Your task to perform on an android device: turn on bluetooth scan Image 0: 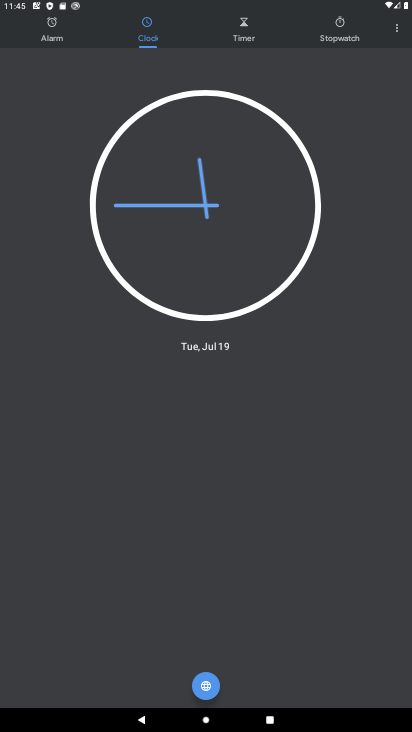
Step 0: click (394, 37)
Your task to perform on an android device: turn on bluetooth scan Image 1: 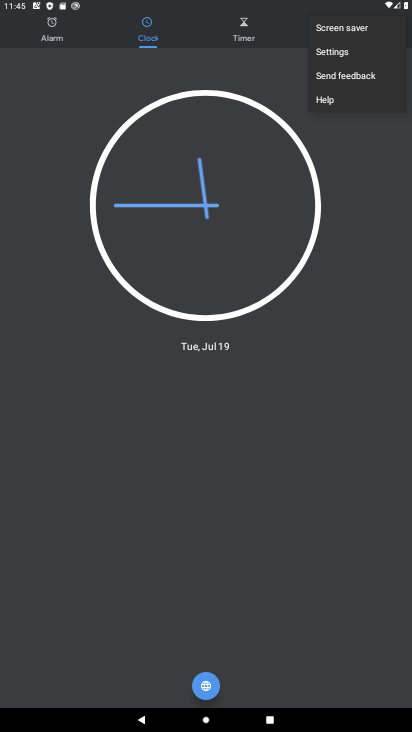
Step 1: click (328, 58)
Your task to perform on an android device: turn on bluetooth scan Image 2: 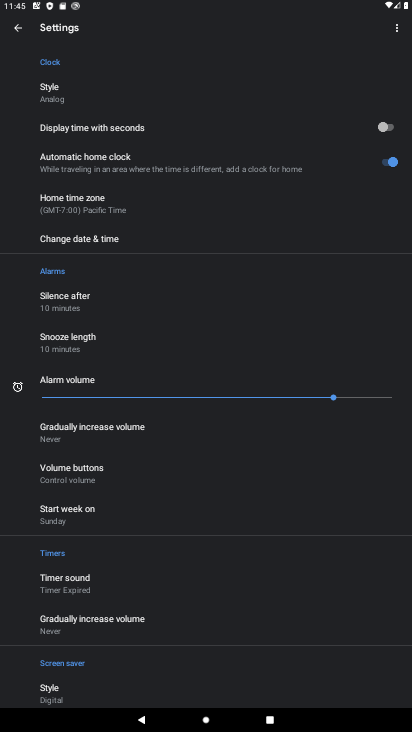
Step 2: press home button
Your task to perform on an android device: turn on bluetooth scan Image 3: 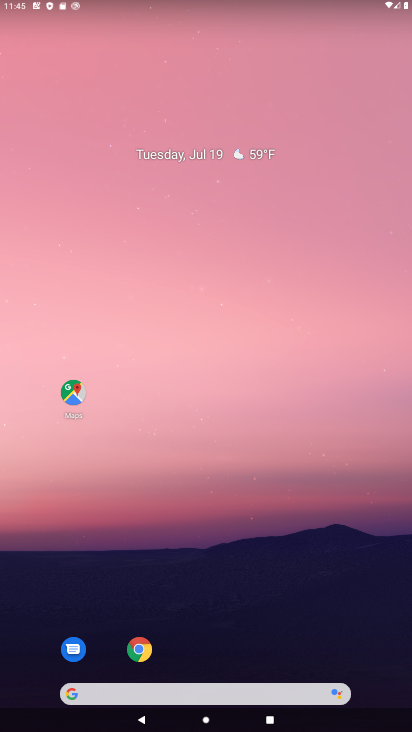
Step 3: drag from (232, 599) to (227, 141)
Your task to perform on an android device: turn on bluetooth scan Image 4: 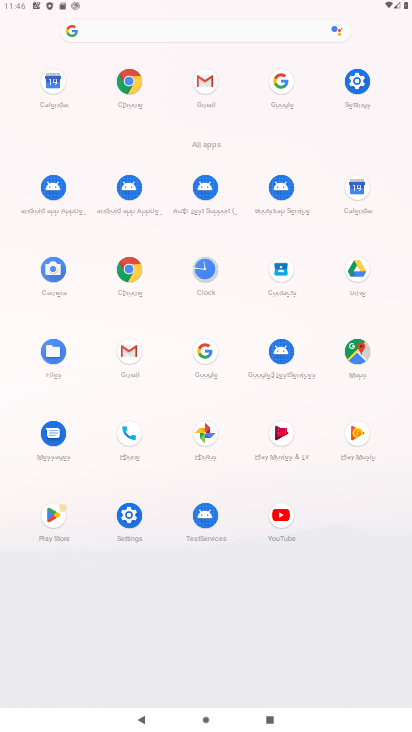
Step 4: click (124, 516)
Your task to perform on an android device: turn on bluetooth scan Image 5: 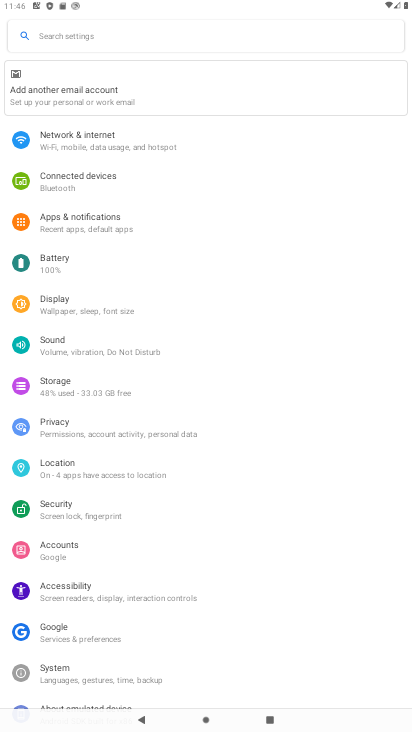
Step 5: click (67, 172)
Your task to perform on an android device: turn on bluetooth scan Image 6: 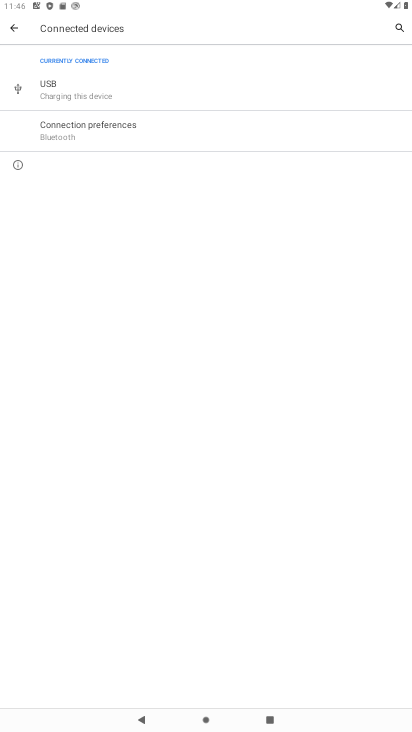
Step 6: task complete